Your task to perform on an android device: turn on notifications settings in the gmail app Image 0: 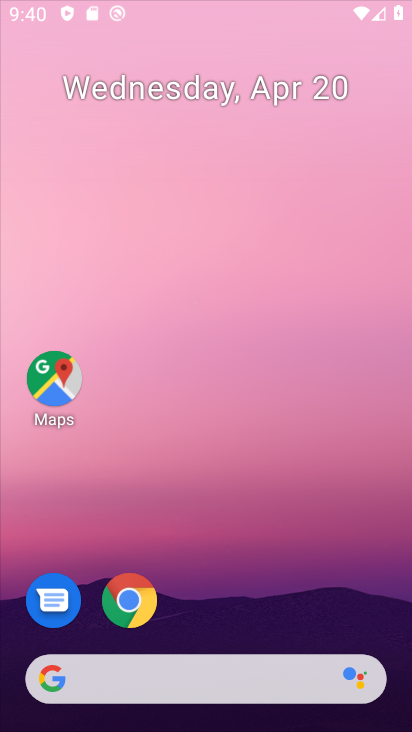
Step 0: click (132, 605)
Your task to perform on an android device: turn on notifications settings in the gmail app Image 1: 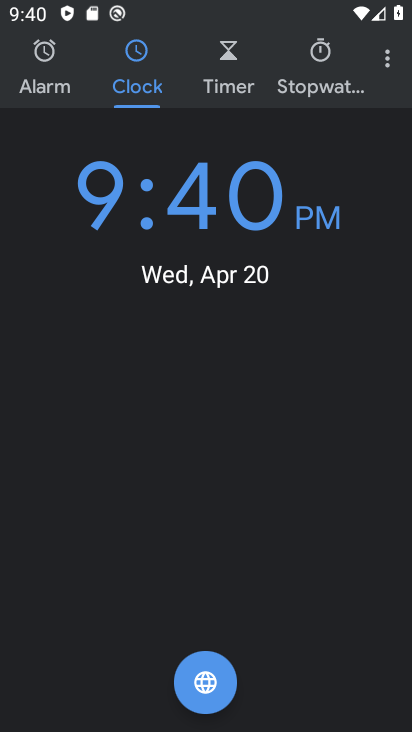
Step 1: press home button
Your task to perform on an android device: turn on notifications settings in the gmail app Image 2: 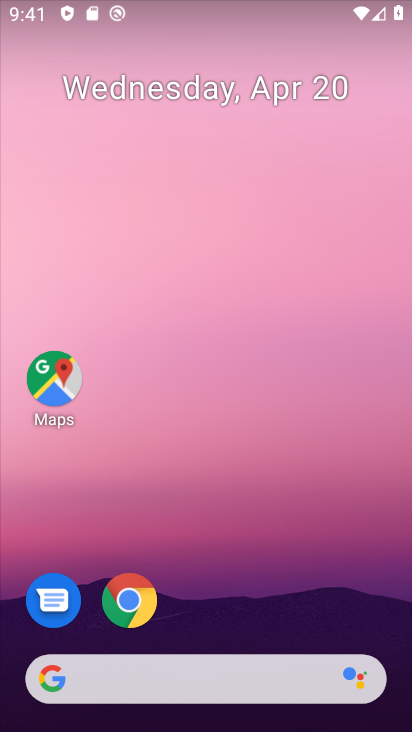
Step 2: drag from (244, 578) to (304, 98)
Your task to perform on an android device: turn on notifications settings in the gmail app Image 3: 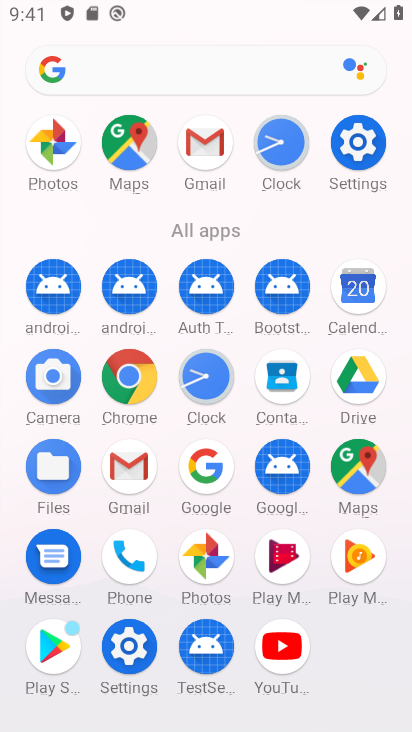
Step 3: click (195, 150)
Your task to perform on an android device: turn on notifications settings in the gmail app Image 4: 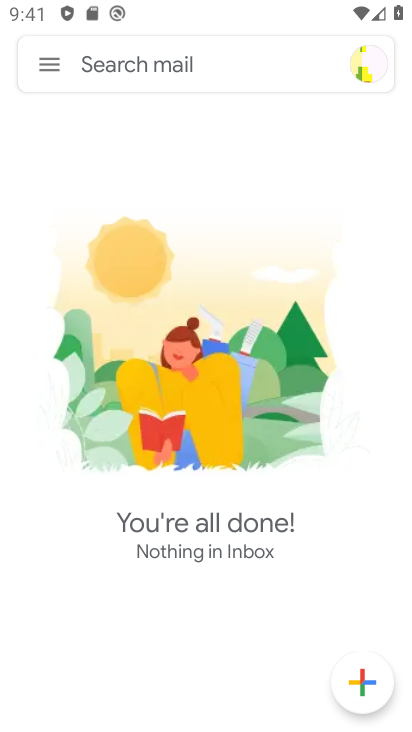
Step 4: click (43, 65)
Your task to perform on an android device: turn on notifications settings in the gmail app Image 5: 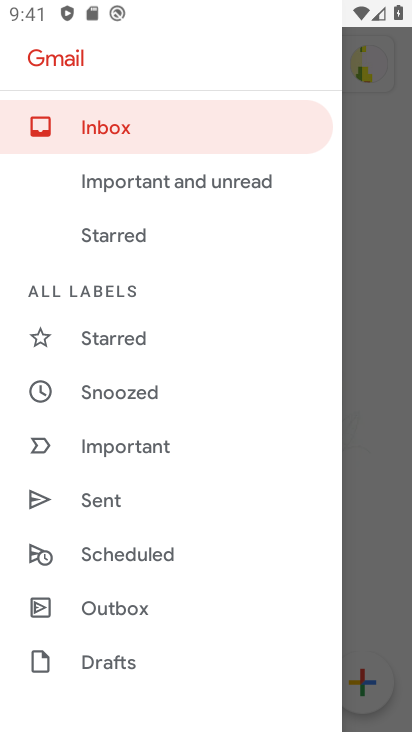
Step 5: drag from (95, 636) to (118, 227)
Your task to perform on an android device: turn on notifications settings in the gmail app Image 6: 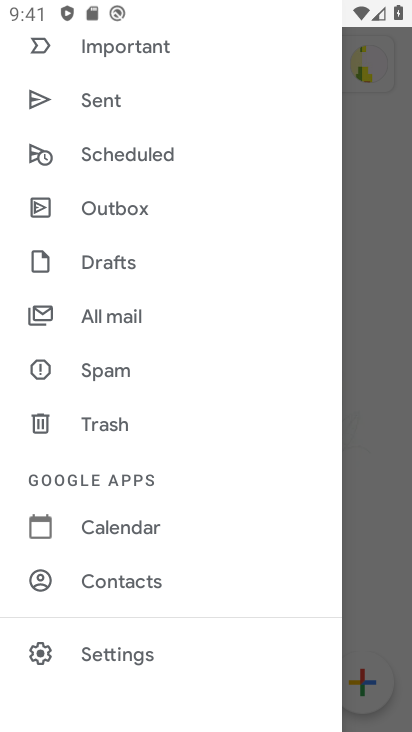
Step 6: click (103, 650)
Your task to perform on an android device: turn on notifications settings in the gmail app Image 7: 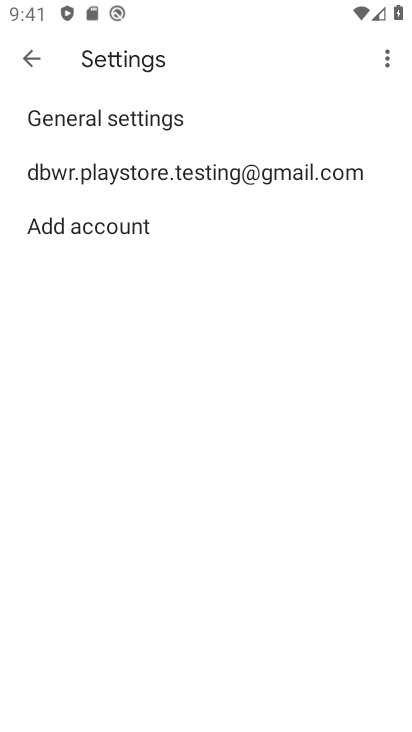
Step 7: click (135, 180)
Your task to perform on an android device: turn on notifications settings in the gmail app Image 8: 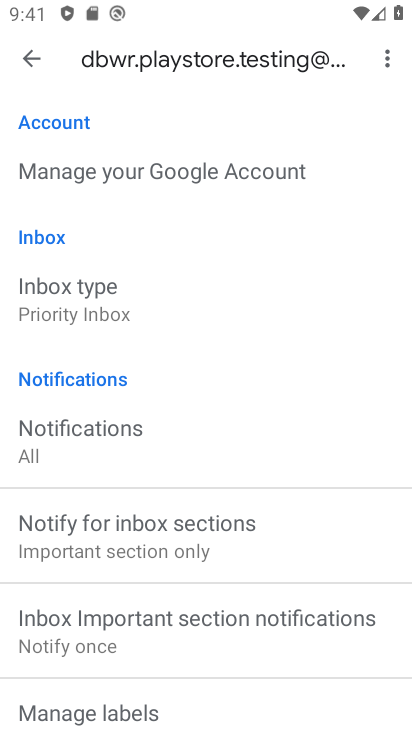
Step 8: click (97, 443)
Your task to perform on an android device: turn on notifications settings in the gmail app Image 9: 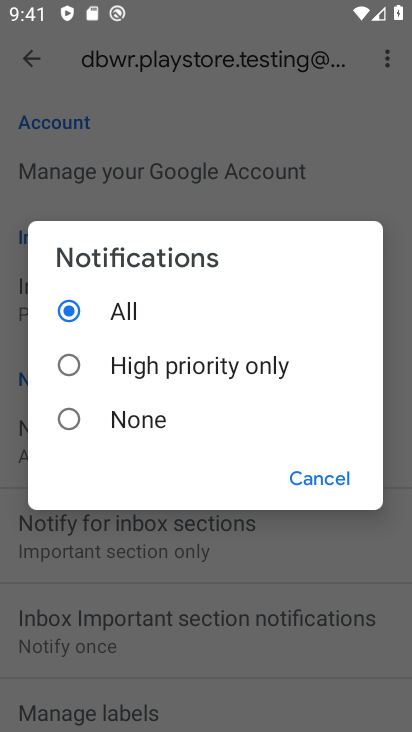
Step 9: click (186, 370)
Your task to perform on an android device: turn on notifications settings in the gmail app Image 10: 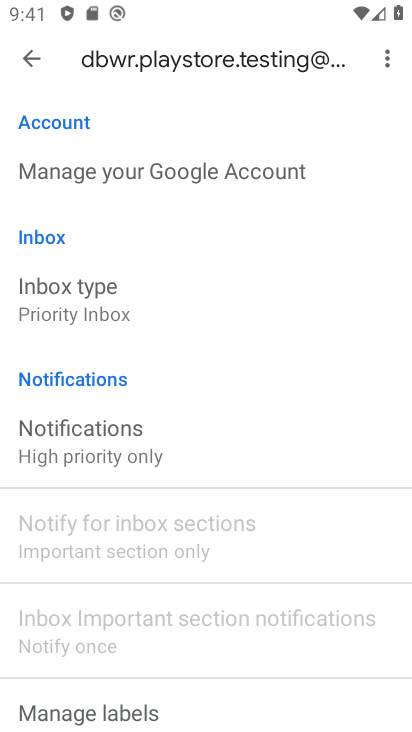
Step 10: task complete